Your task to perform on an android device: turn pop-ups on in chrome Image 0: 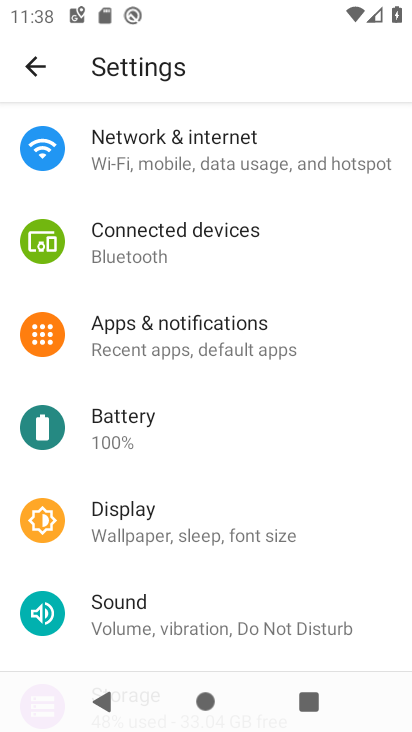
Step 0: press home button
Your task to perform on an android device: turn pop-ups on in chrome Image 1: 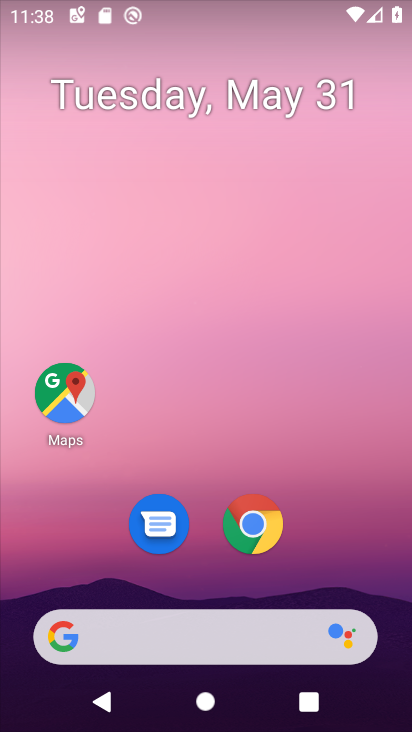
Step 1: click (265, 517)
Your task to perform on an android device: turn pop-ups on in chrome Image 2: 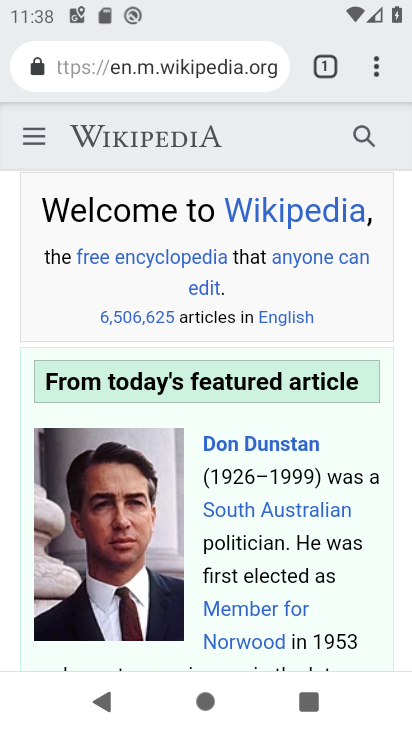
Step 2: click (374, 59)
Your task to perform on an android device: turn pop-ups on in chrome Image 3: 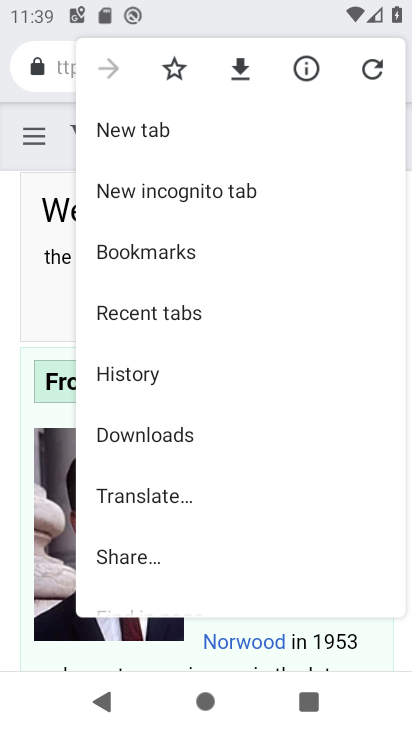
Step 3: drag from (246, 503) to (210, 133)
Your task to perform on an android device: turn pop-ups on in chrome Image 4: 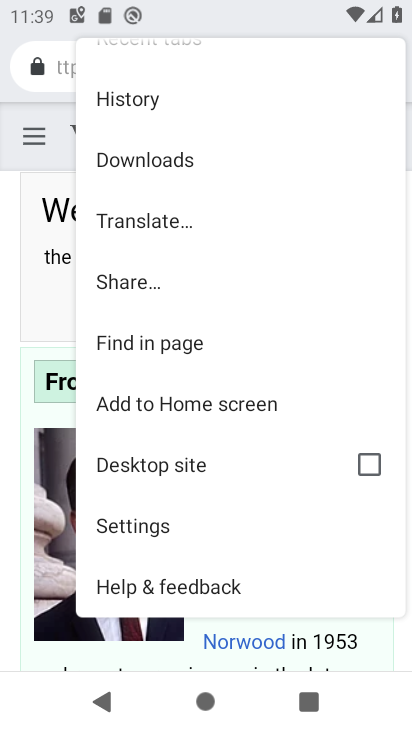
Step 4: click (178, 528)
Your task to perform on an android device: turn pop-ups on in chrome Image 5: 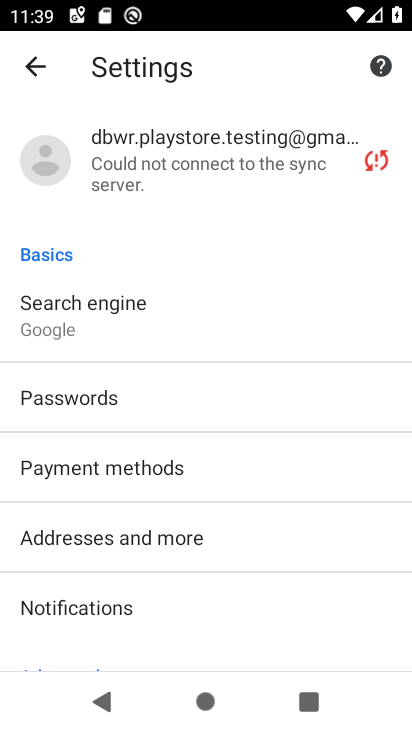
Step 5: drag from (255, 575) to (289, 221)
Your task to perform on an android device: turn pop-ups on in chrome Image 6: 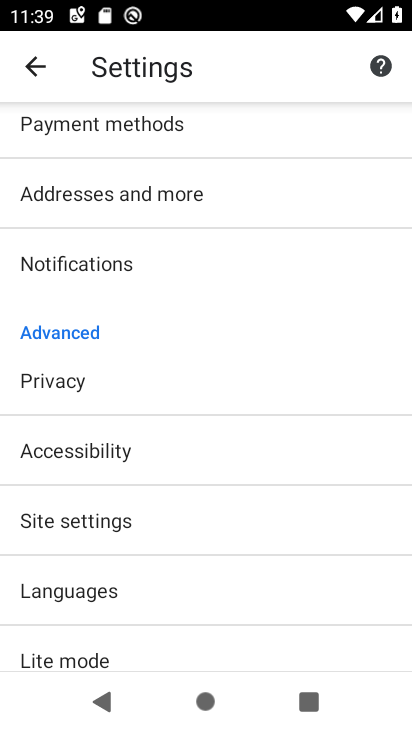
Step 6: click (253, 533)
Your task to perform on an android device: turn pop-ups on in chrome Image 7: 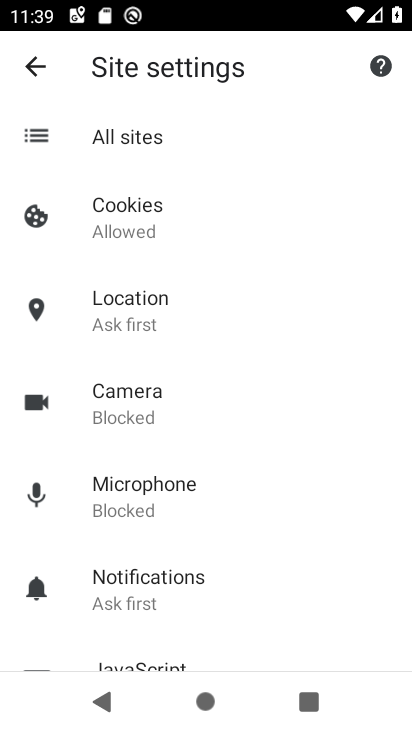
Step 7: drag from (245, 553) to (267, 224)
Your task to perform on an android device: turn pop-ups on in chrome Image 8: 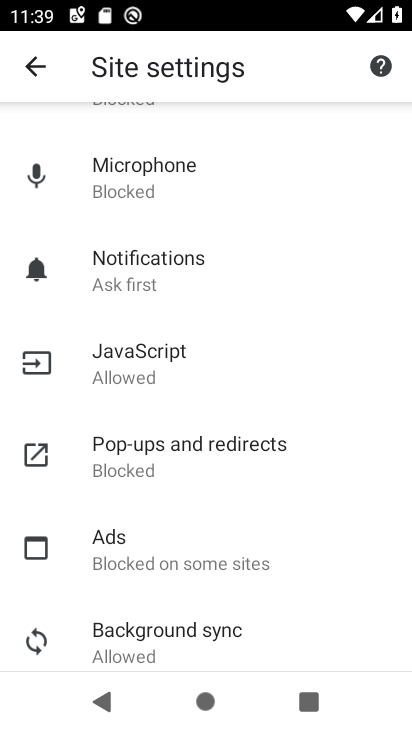
Step 8: click (215, 452)
Your task to perform on an android device: turn pop-ups on in chrome Image 9: 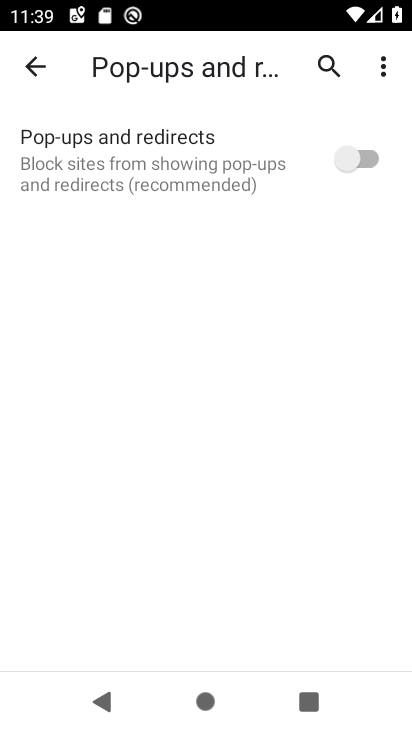
Step 9: click (363, 153)
Your task to perform on an android device: turn pop-ups on in chrome Image 10: 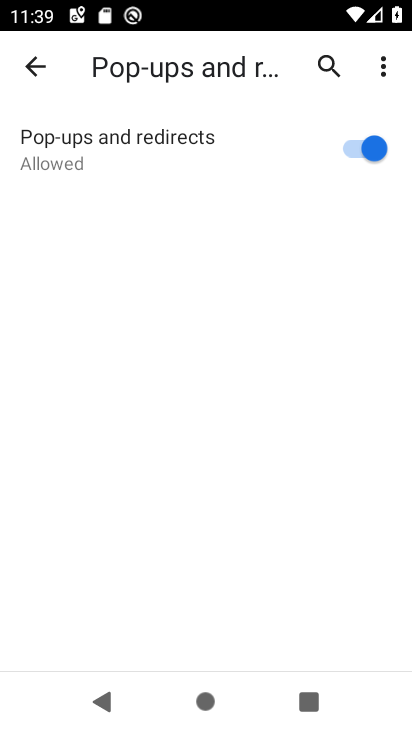
Step 10: task complete